Your task to perform on an android device: Go to notification settings Image 0: 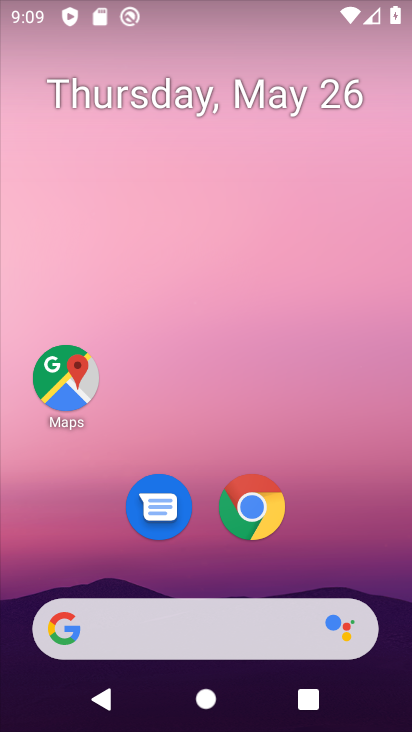
Step 0: drag from (376, 578) to (375, 221)
Your task to perform on an android device: Go to notification settings Image 1: 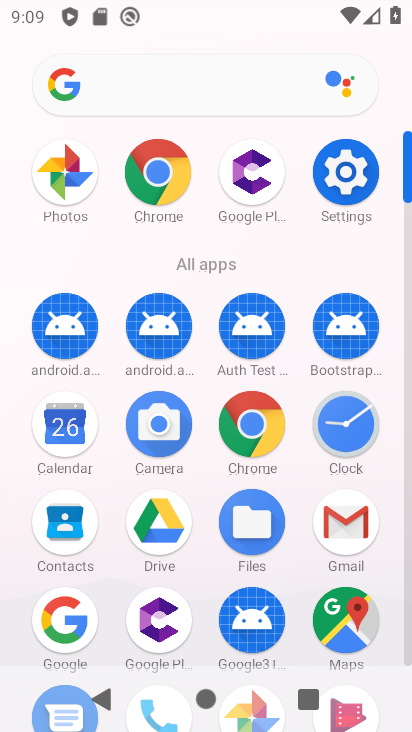
Step 1: click (342, 191)
Your task to perform on an android device: Go to notification settings Image 2: 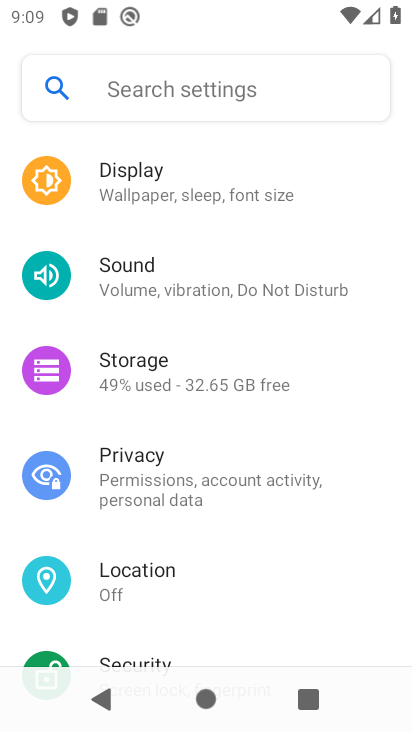
Step 2: drag from (342, 191) to (350, 335)
Your task to perform on an android device: Go to notification settings Image 3: 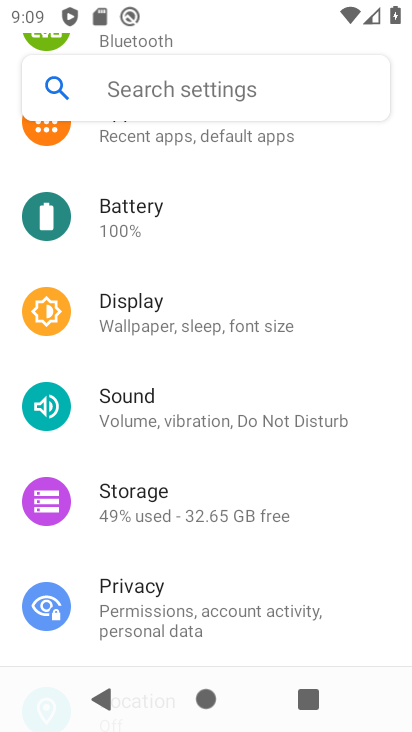
Step 3: drag from (358, 193) to (360, 321)
Your task to perform on an android device: Go to notification settings Image 4: 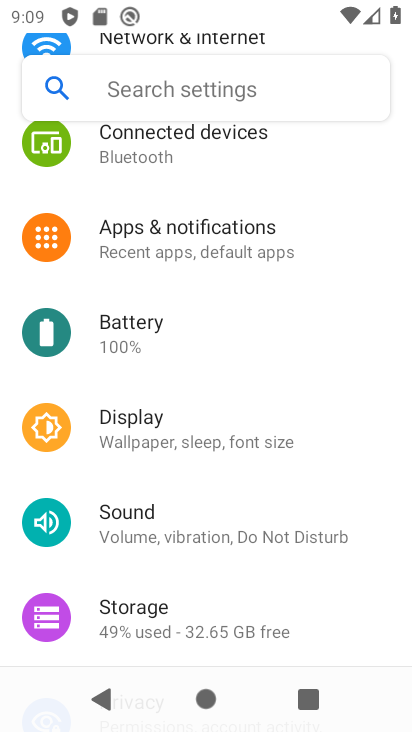
Step 4: drag from (360, 175) to (345, 317)
Your task to perform on an android device: Go to notification settings Image 5: 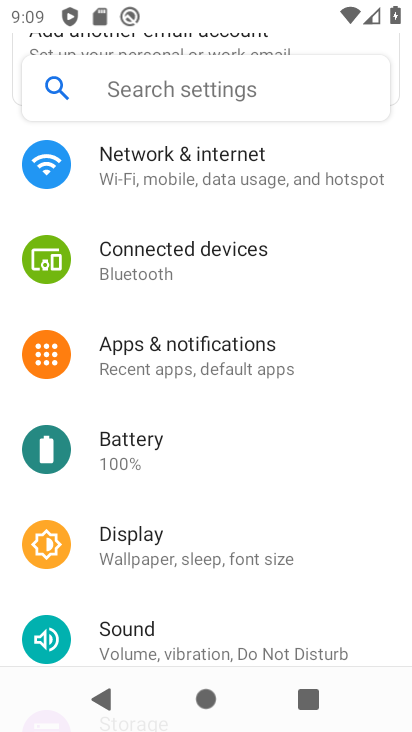
Step 5: drag from (377, 143) to (363, 303)
Your task to perform on an android device: Go to notification settings Image 6: 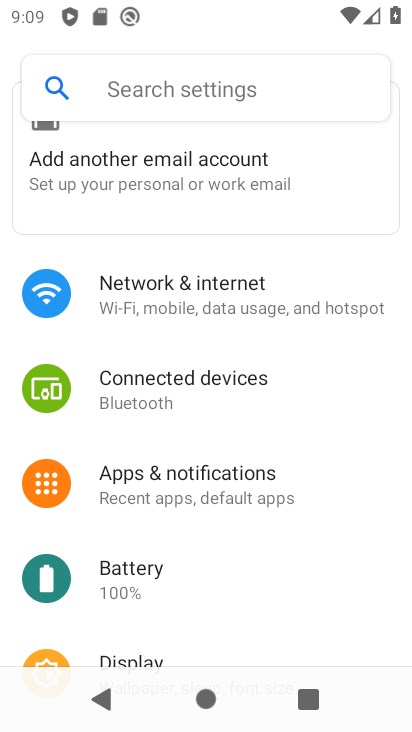
Step 6: drag from (372, 152) to (382, 300)
Your task to perform on an android device: Go to notification settings Image 7: 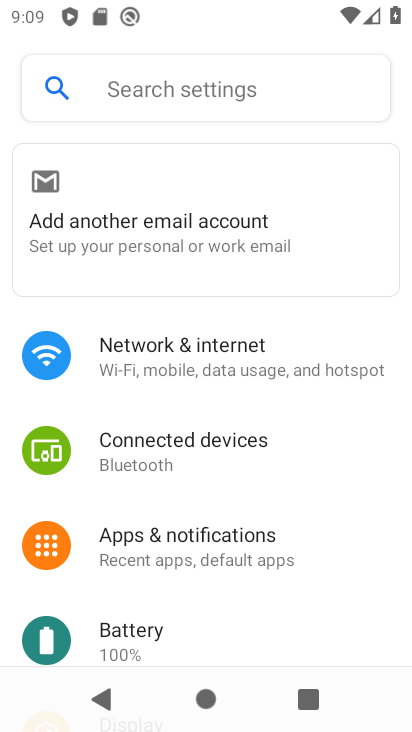
Step 7: drag from (371, 342) to (379, 187)
Your task to perform on an android device: Go to notification settings Image 8: 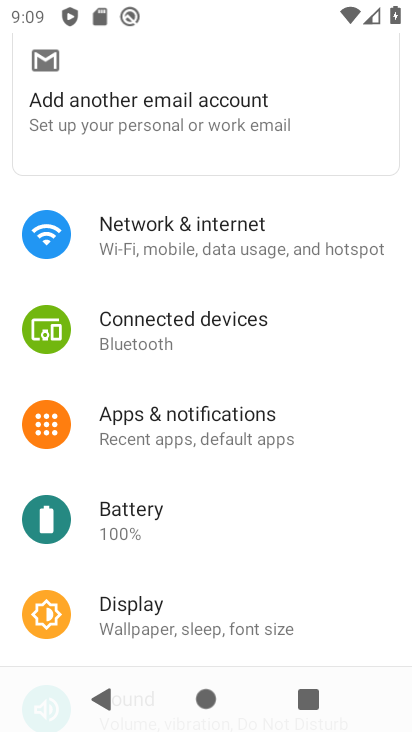
Step 8: drag from (354, 369) to (353, 256)
Your task to perform on an android device: Go to notification settings Image 9: 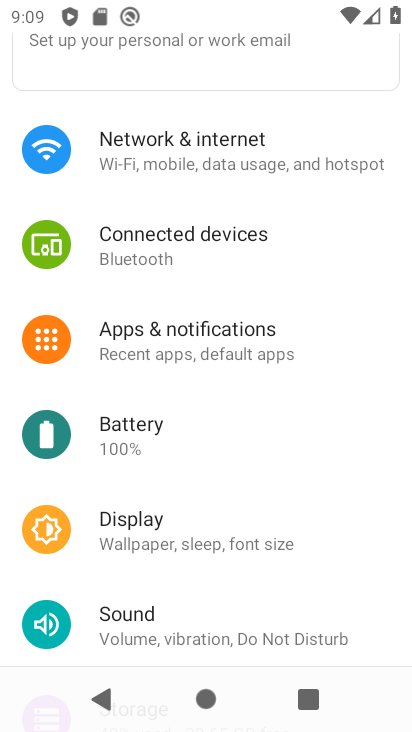
Step 9: click (288, 360)
Your task to perform on an android device: Go to notification settings Image 10: 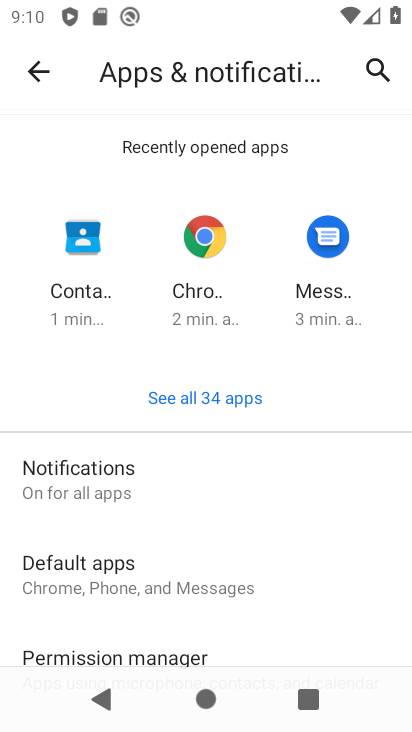
Step 10: click (159, 497)
Your task to perform on an android device: Go to notification settings Image 11: 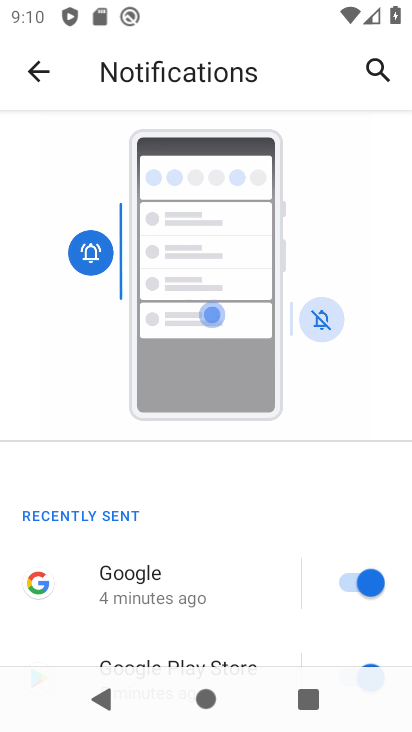
Step 11: drag from (183, 600) to (234, 426)
Your task to perform on an android device: Go to notification settings Image 12: 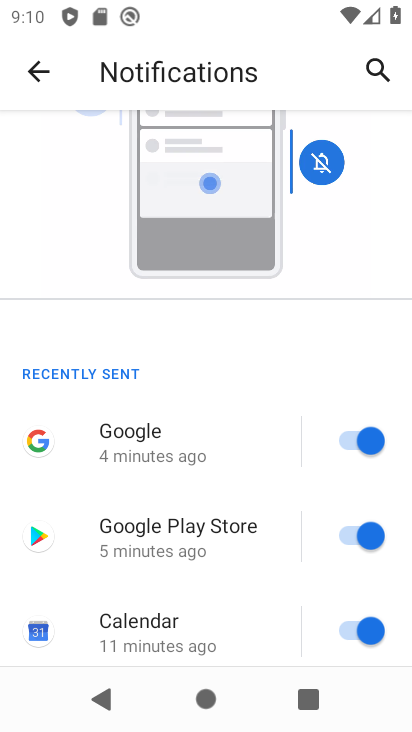
Step 12: drag from (224, 522) to (247, 398)
Your task to perform on an android device: Go to notification settings Image 13: 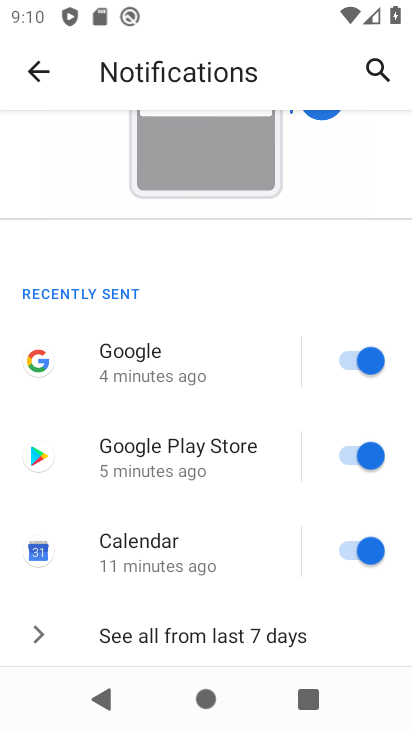
Step 13: drag from (276, 526) to (269, 342)
Your task to perform on an android device: Go to notification settings Image 14: 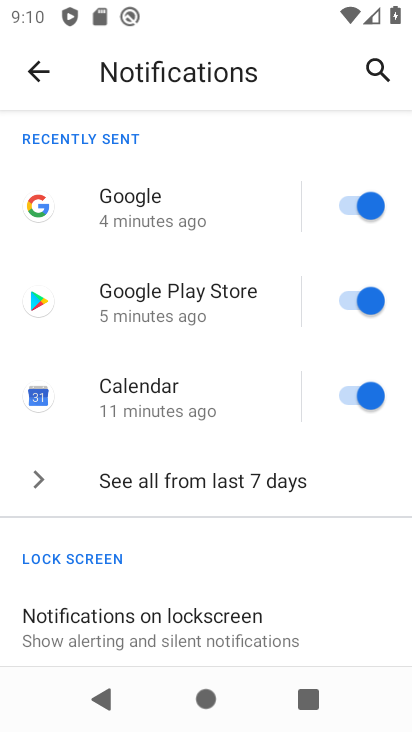
Step 14: drag from (252, 537) to (251, 353)
Your task to perform on an android device: Go to notification settings Image 15: 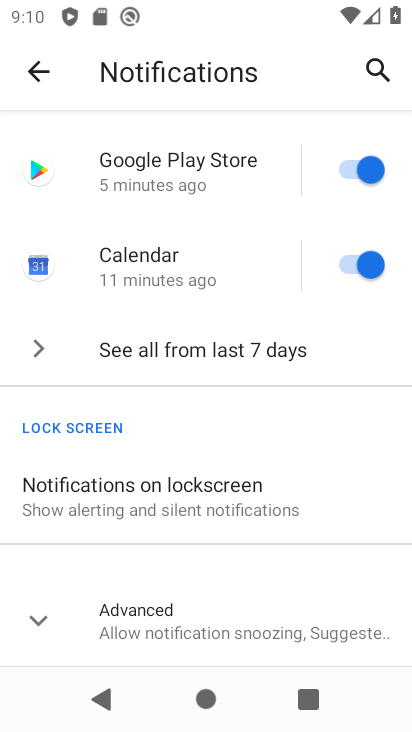
Step 15: click (350, 263)
Your task to perform on an android device: Go to notification settings Image 16: 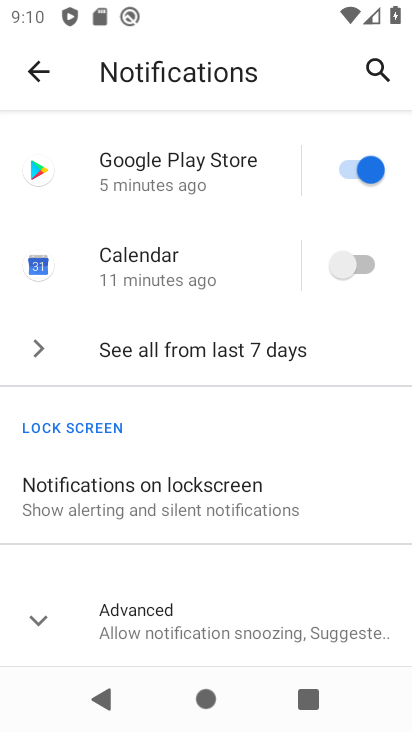
Step 16: click (366, 180)
Your task to perform on an android device: Go to notification settings Image 17: 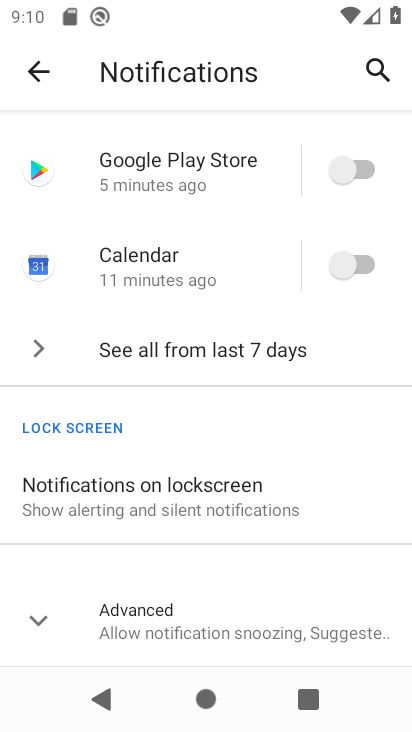
Step 17: task complete